Your task to perform on an android device: open a bookmark in the chrome app Image 0: 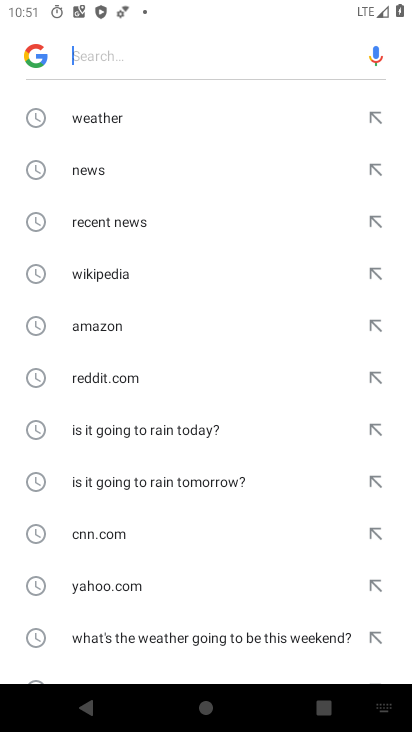
Step 0: press back button
Your task to perform on an android device: open a bookmark in the chrome app Image 1: 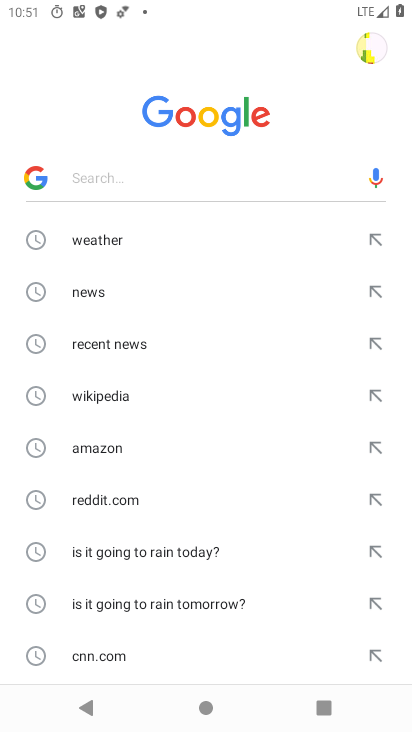
Step 1: press back button
Your task to perform on an android device: open a bookmark in the chrome app Image 2: 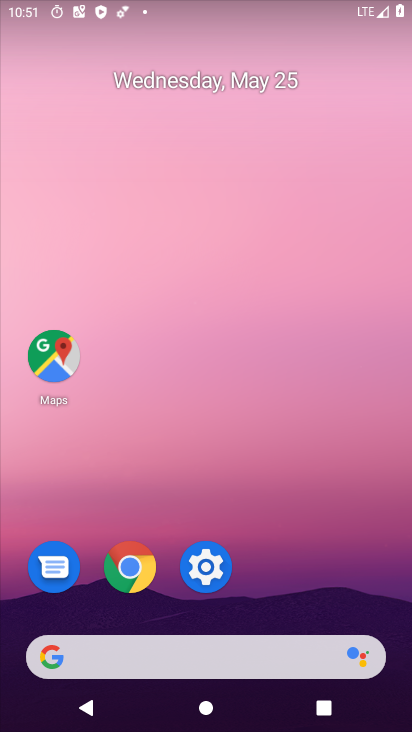
Step 2: drag from (276, 685) to (254, 309)
Your task to perform on an android device: open a bookmark in the chrome app Image 3: 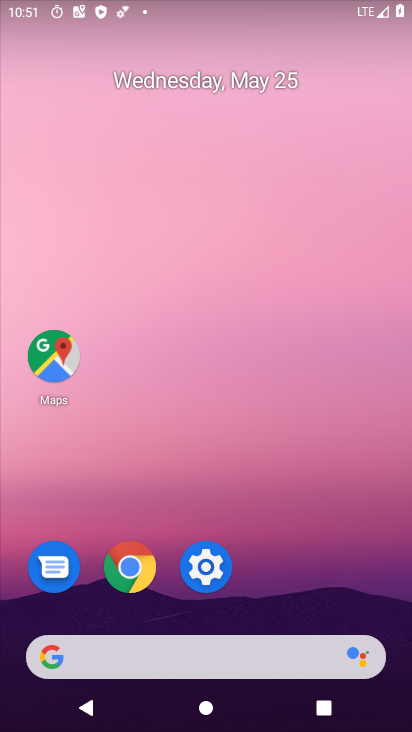
Step 3: drag from (232, 669) to (207, 169)
Your task to perform on an android device: open a bookmark in the chrome app Image 4: 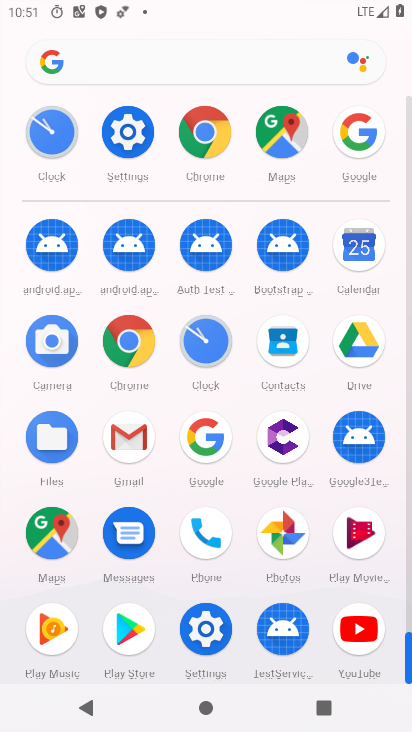
Step 4: click (193, 123)
Your task to perform on an android device: open a bookmark in the chrome app Image 5: 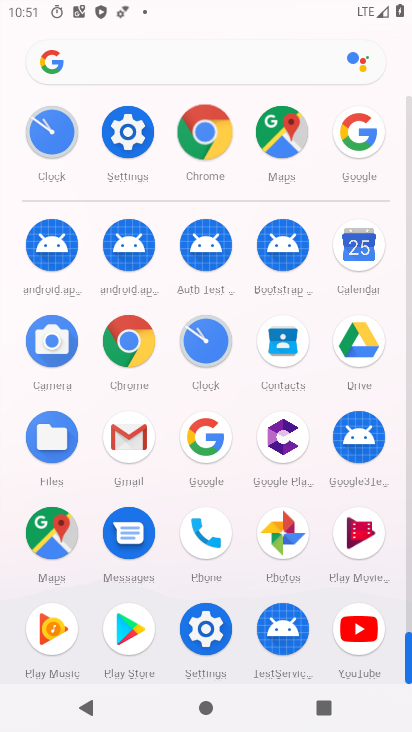
Step 5: click (200, 124)
Your task to perform on an android device: open a bookmark in the chrome app Image 6: 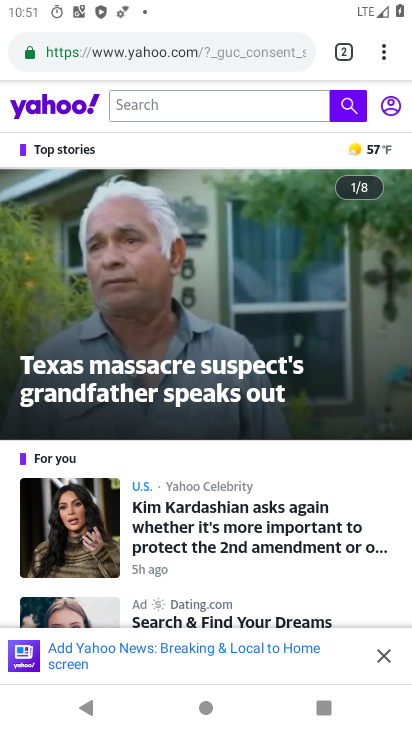
Step 6: drag from (381, 53) to (255, 299)
Your task to perform on an android device: open a bookmark in the chrome app Image 7: 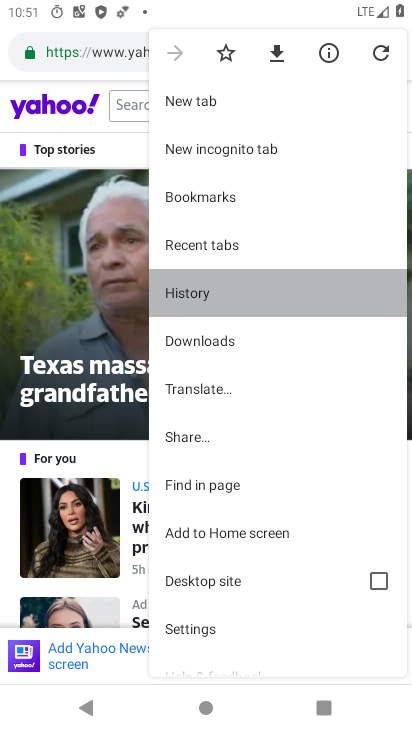
Step 7: click (255, 299)
Your task to perform on an android device: open a bookmark in the chrome app Image 8: 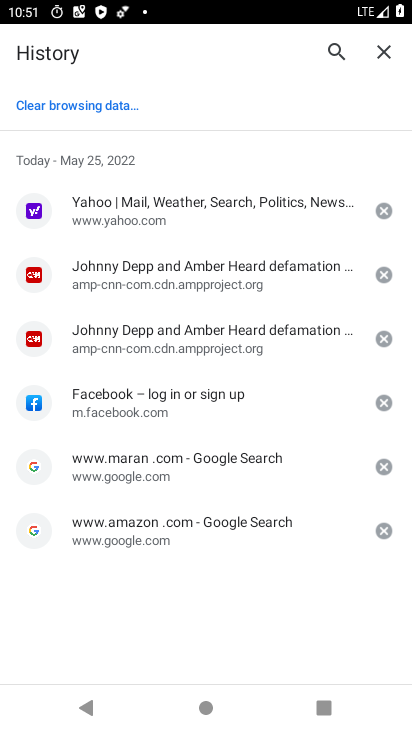
Step 8: press back button
Your task to perform on an android device: open a bookmark in the chrome app Image 9: 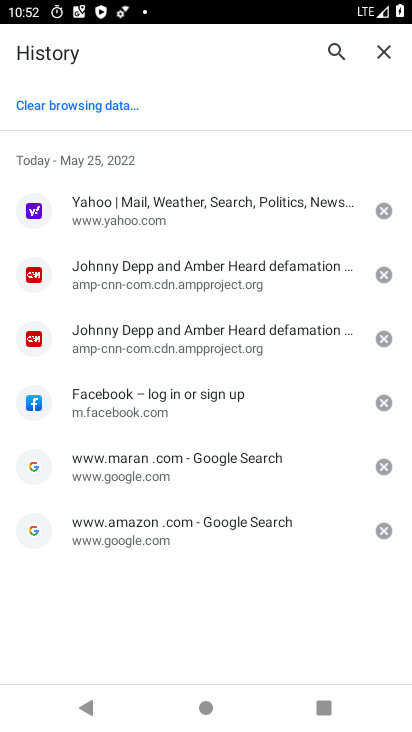
Step 9: press back button
Your task to perform on an android device: open a bookmark in the chrome app Image 10: 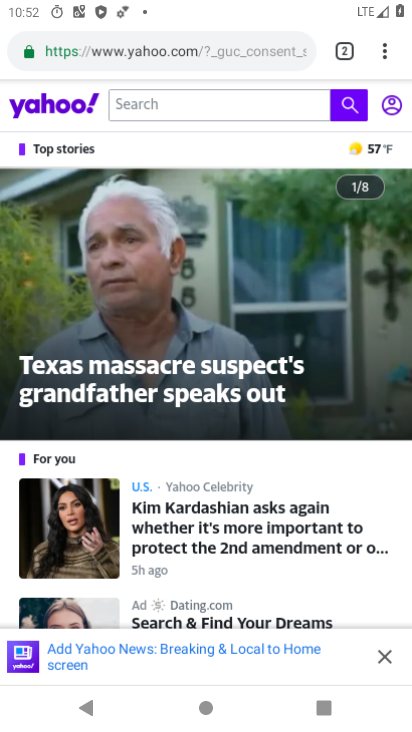
Step 10: press back button
Your task to perform on an android device: open a bookmark in the chrome app Image 11: 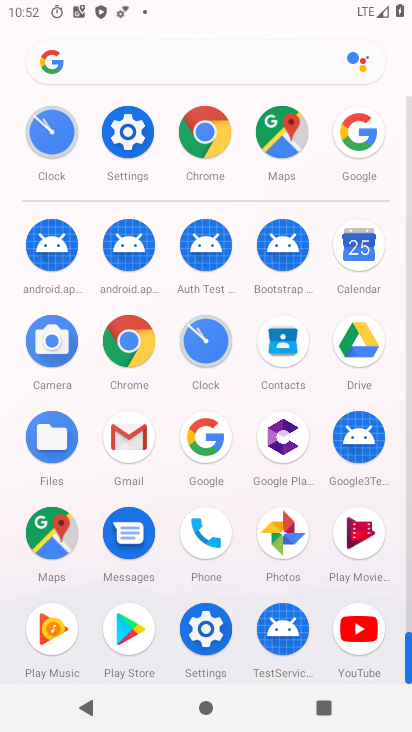
Step 11: click (194, 141)
Your task to perform on an android device: open a bookmark in the chrome app Image 12: 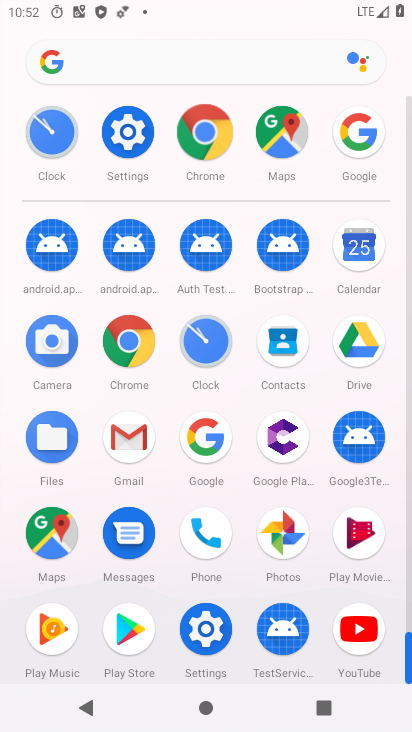
Step 12: click (199, 139)
Your task to perform on an android device: open a bookmark in the chrome app Image 13: 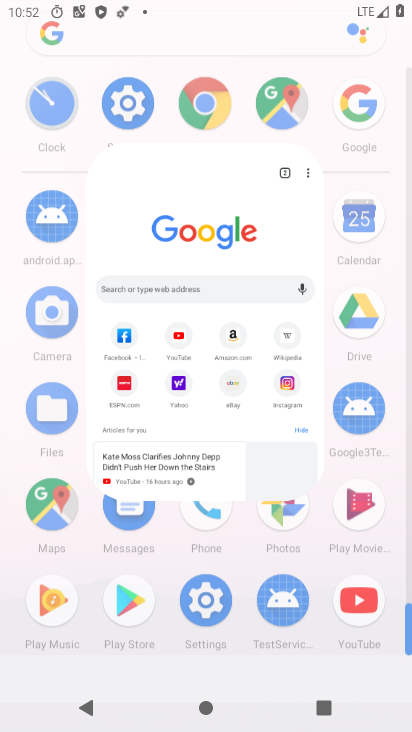
Step 13: click (199, 139)
Your task to perform on an android device: open a bookmark in the chrome app Image 14: 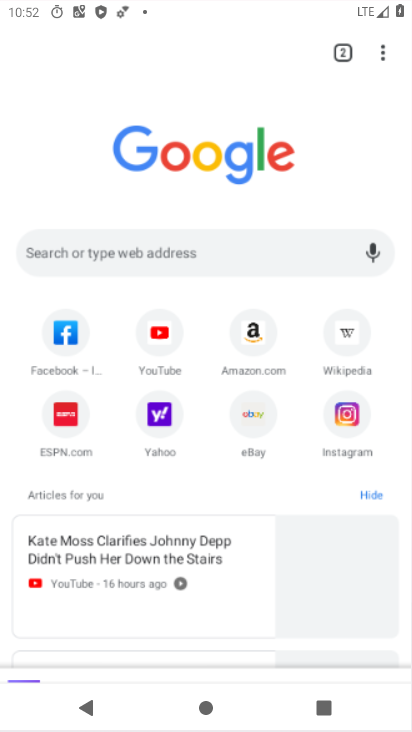
Step 14: click (199, 139)
Your task to perform on an android device: open a bookmark in the chrome app Image 15: 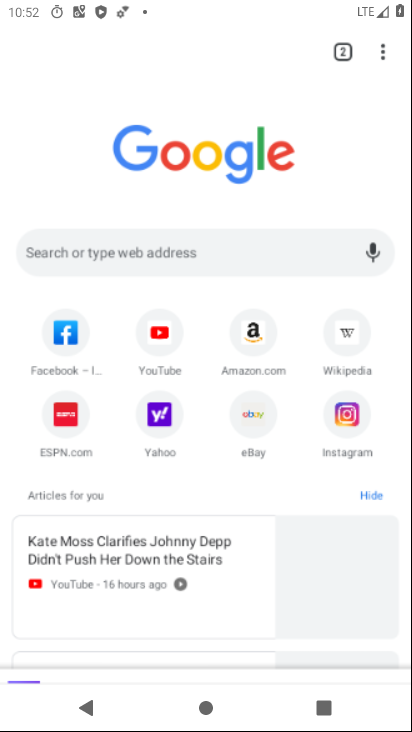
Step 15: click (201, 139)
Your task to perform on an android device: open a bookmark in the chrome app Image 16: 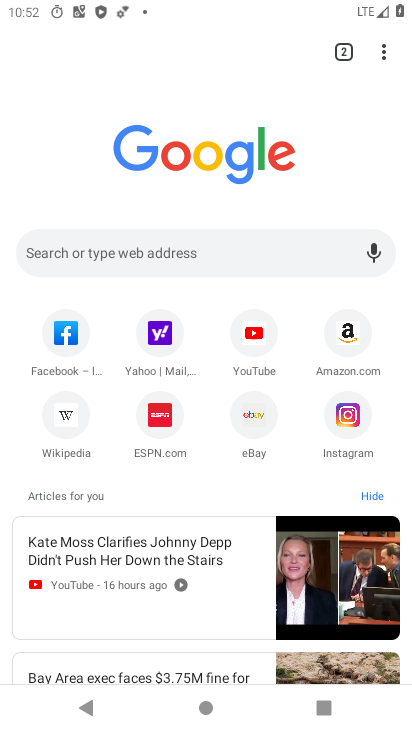
Step 16: drag from (383, 57) to (185, 196)
Your task to perform on an android device: open a bookmark in the chrome app Image 17: 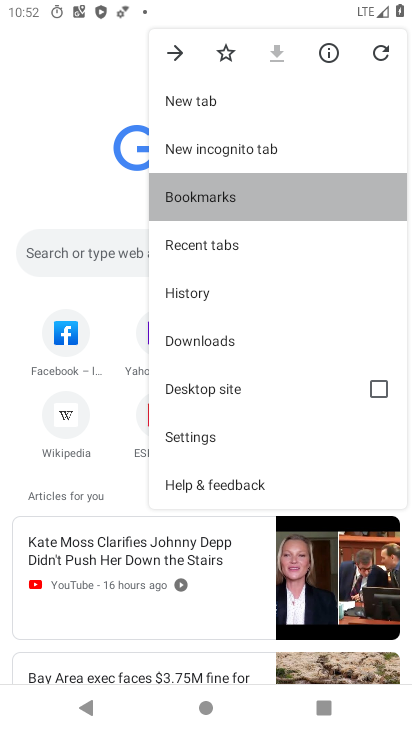
Step 17: click (185, 196)
Your task to perform on an android device: open a bookmark in the chrome app Image 18: 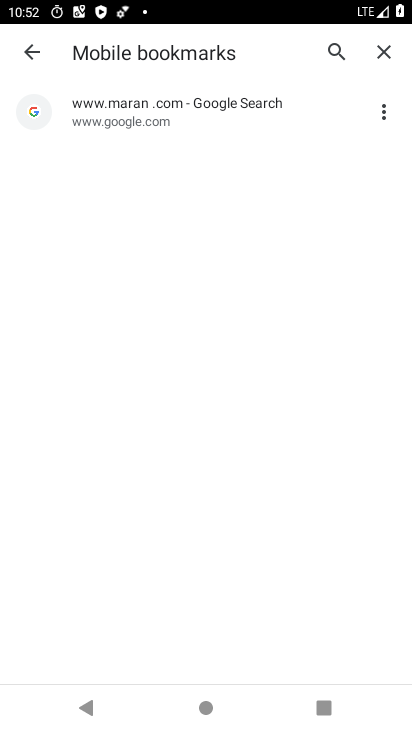
Step 18: task complete